Your task to perform on an android device: turn off improve location accuracy Image 0: 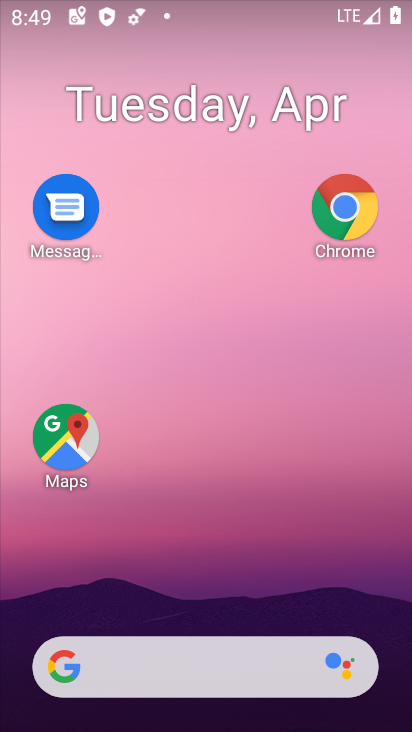
Step 0: drag from (229, 611) to (135, 162)
Your task to perform on an android device: turn off improve location accuracy Image 1: 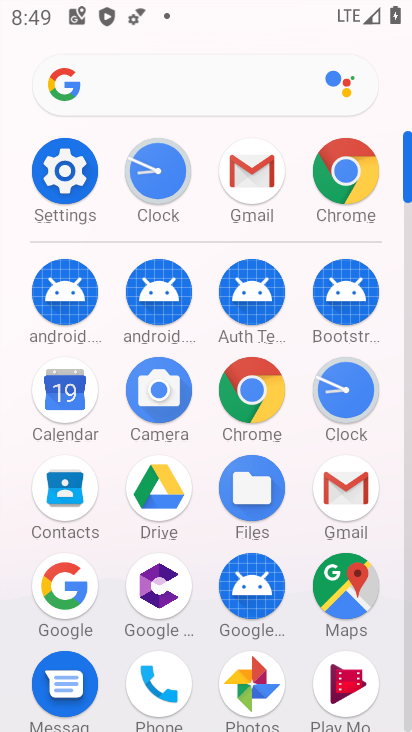
Step 1: click (63, 192)
Your task to perform on an android device: turn off improve location accuracy Image 2: 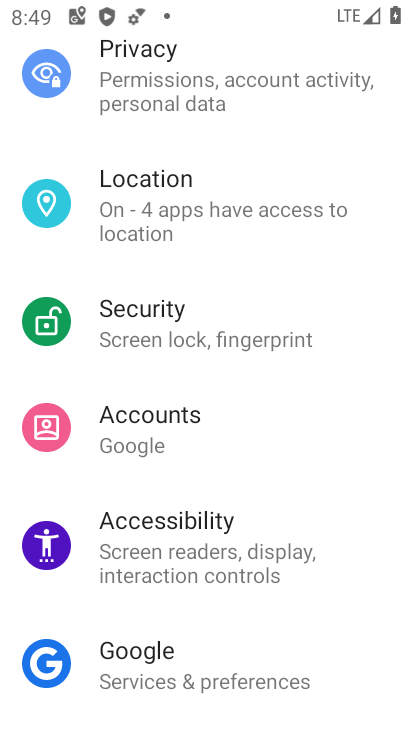
Step 2: click (135, 193)
Your task to perform on an android device: turn off improve location accuracy Image 3: 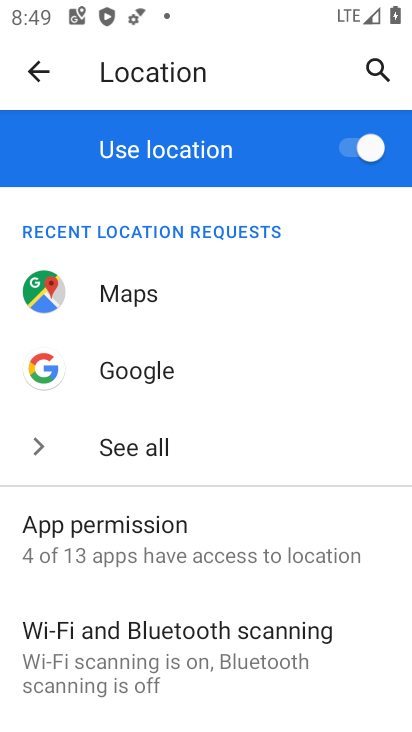
Step 3: drag from (361, 656) to (340, 214)
Your task to perform on an android device: turn off improve location accuracy Image 4: 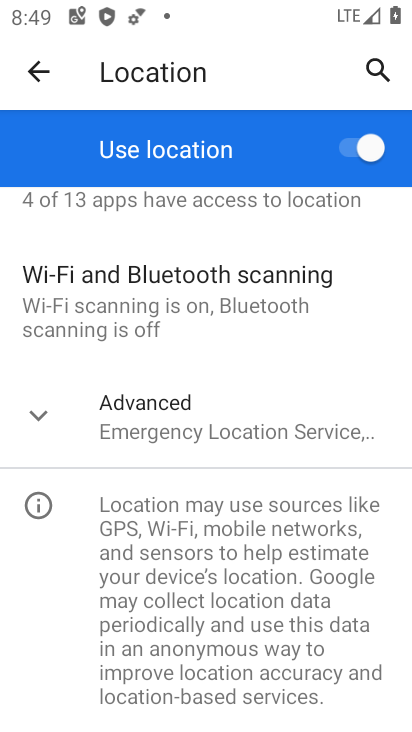
Step 4: click (245, 411)
Your task to perform on an android device: turn off improve location accuracy Image 5: 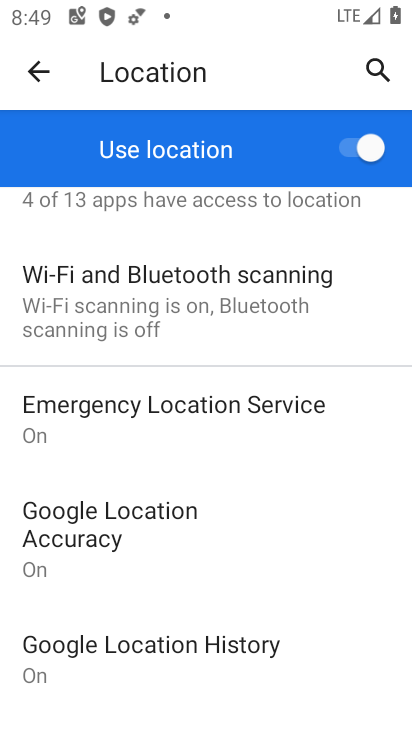
Step 5: click (67, 527)
Your task to perform on an android device: turn off improve location accuracy Image 6: 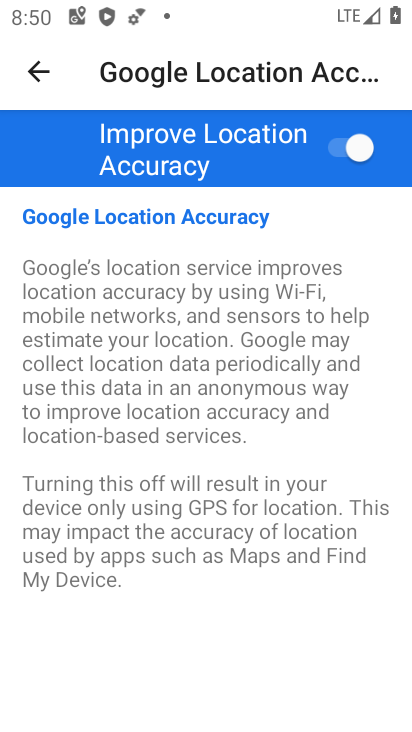
Step 6: click (330, 142)
Your task to perform on an android device: turn off improve location accuracy Image 7: 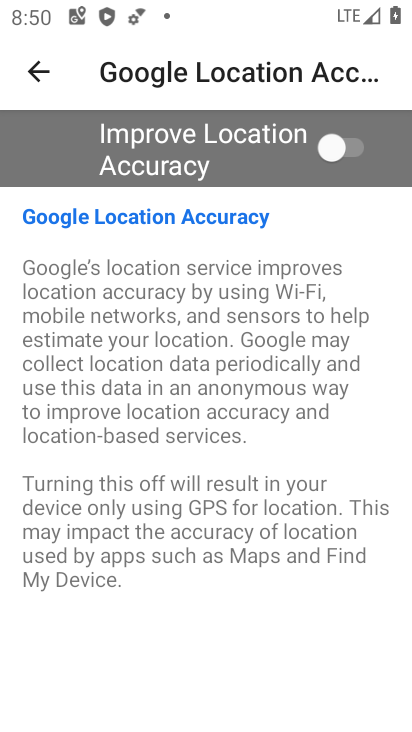
Step 7: task complete